Your task to perform on an android device: snooze an email in the gmail app Image 0: 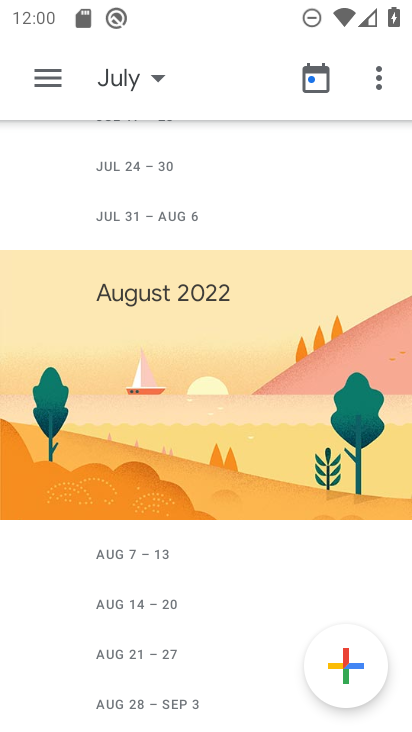
Step 0: press home button
Your task to perform on an android device: snooze an email in the gmail app Image 1: 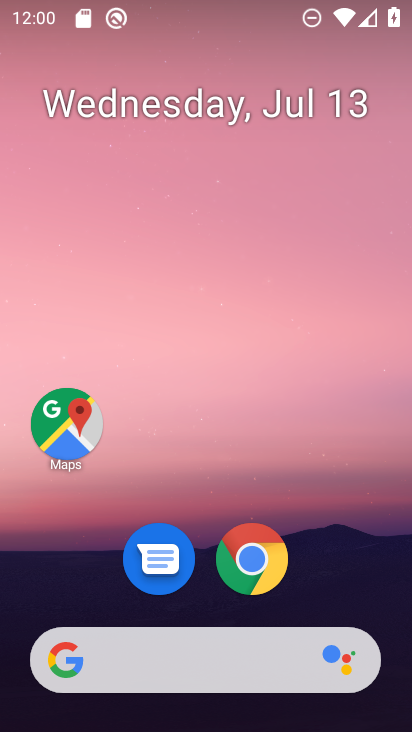
Step 1: drag from (246, 577) to (246, 197)
Your task to perform on an android device: snooze an email in the gmail app Image 2: 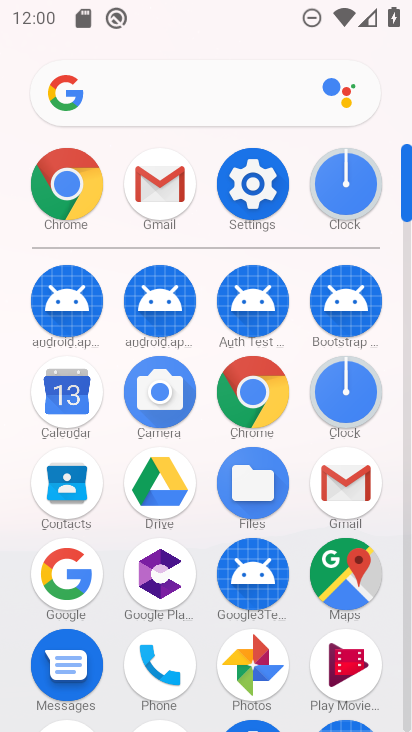
Step 2: click (365, 496)
Your task to perform on an android device: snooze an email in the gmail app Image 3: 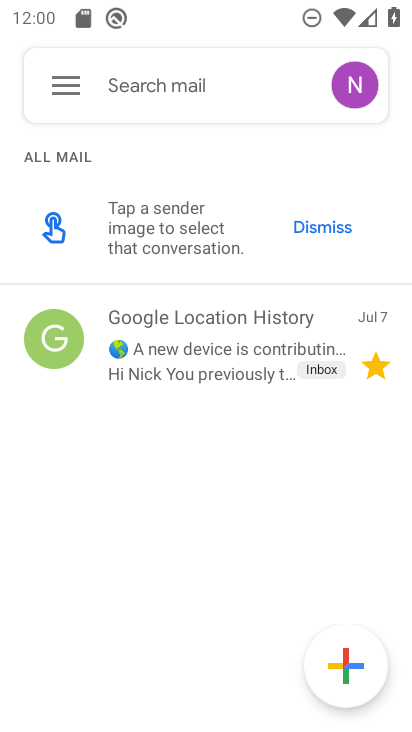
Step 3: click (168, 348)
Your task to perform on an android device: snooze an email in the gmail app Image 4: 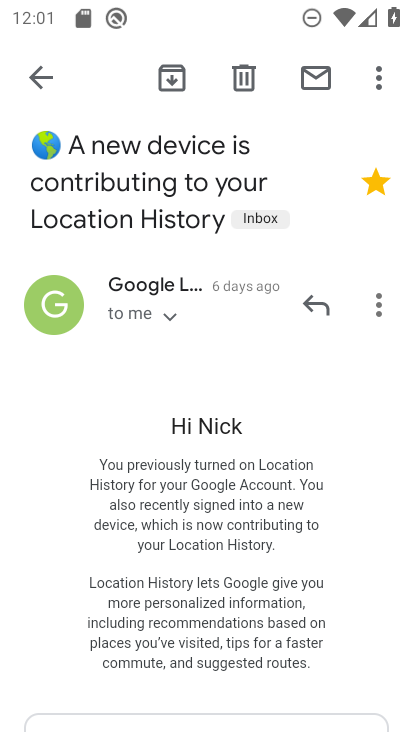
Step 4: click (387, 74)
Your task to perform on an android device: snooze an email in the gmail app Image 5: 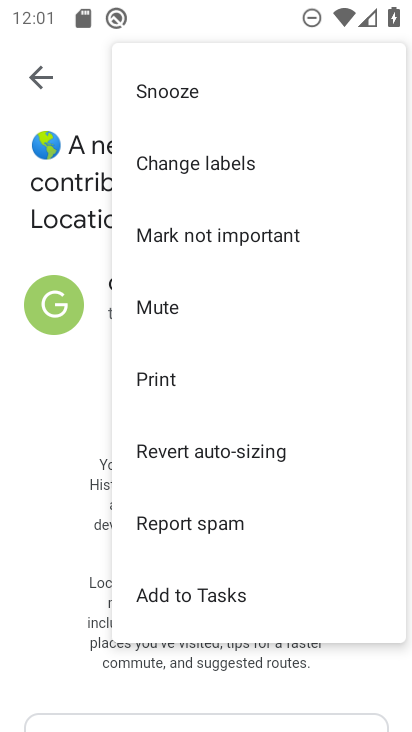
Step 5: click (183, 89)
Your task to perform on an android device: snooze an email in the gmail app Image 6: 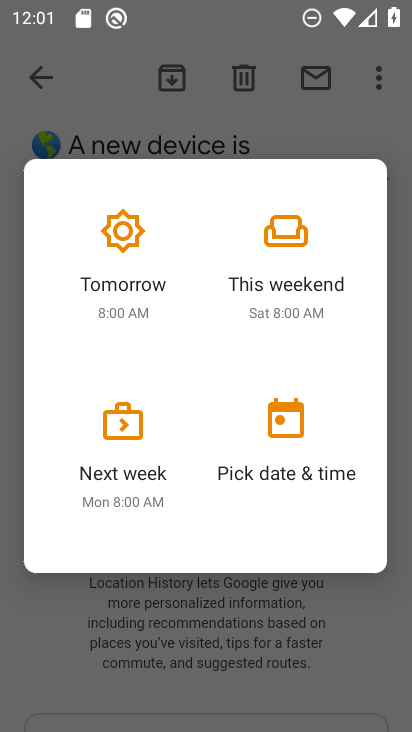
Step 6: click (119, 297)
Your task to perform on an android device: snooze an email in the gmail app Image 7: 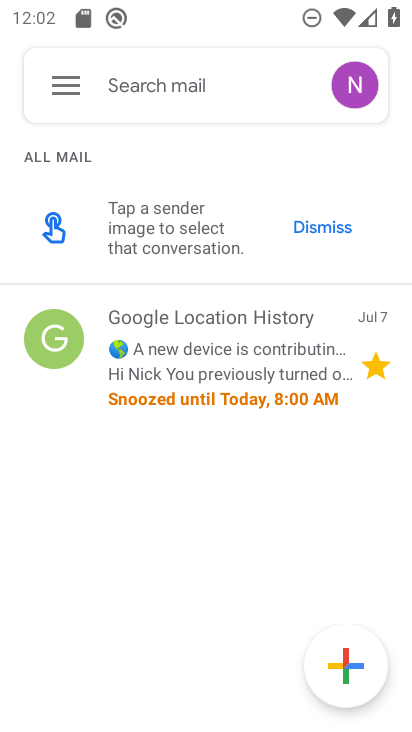
Step 7: task complete